Your task to perform on an android device: toggle data saver in the chrome app Image 0: 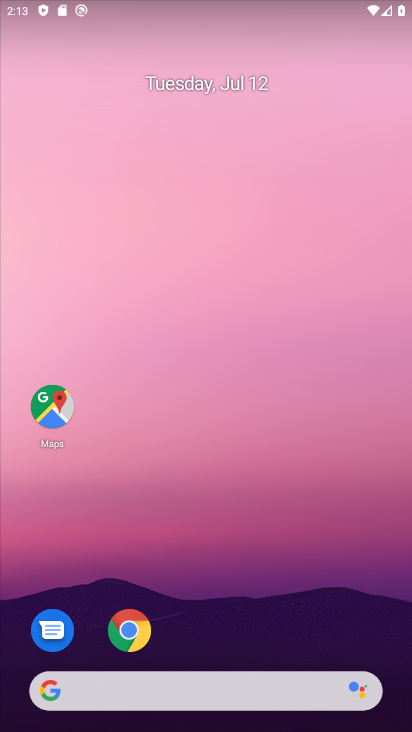
Step 0: click (130, 629)
Your task to perform on an android device: toggle data saver in the chrome app Image 1: 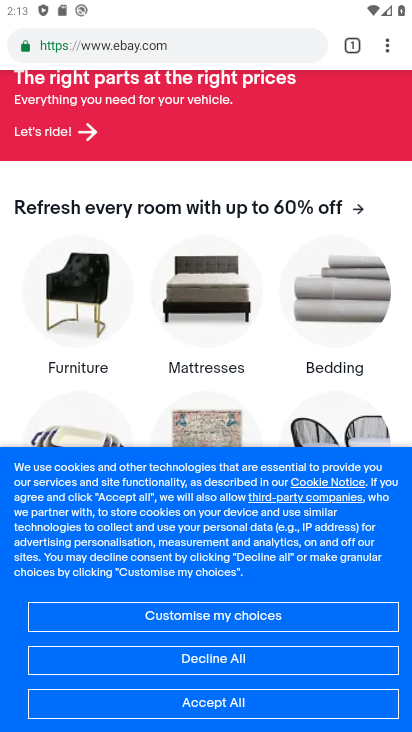
Step 1: click (384, 45)
Your task to perform on an android device: toggle data saver in the chrome app Image 2: 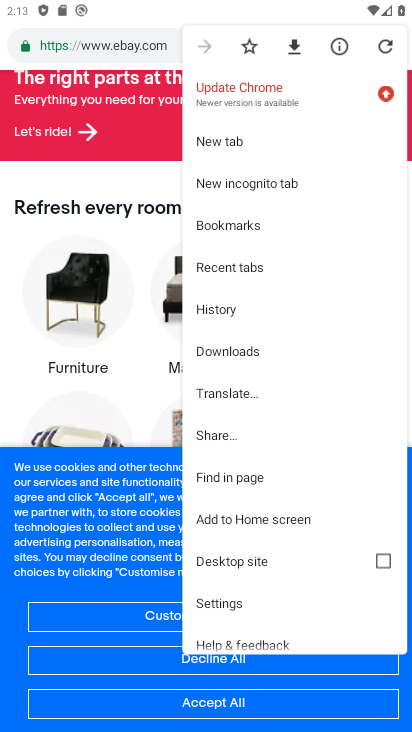
Step 2: click (234, 598)
Your task to perform on an android device: toggle data saver in the chrome app Image 3: 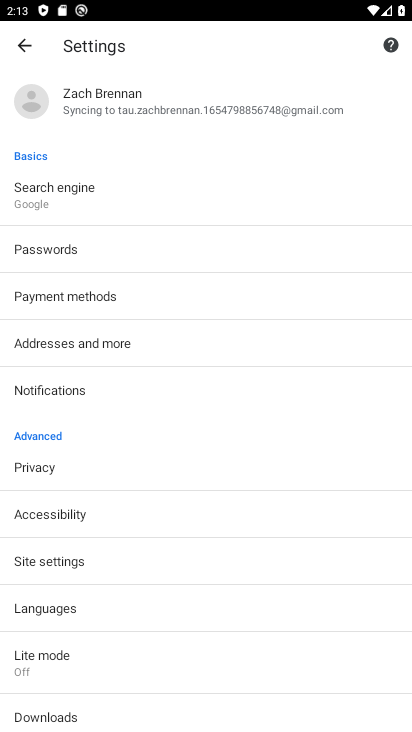
Step 3: click (40, 660)
Your task to perform on an android device: toggle data saver in the chrome app Image 4: 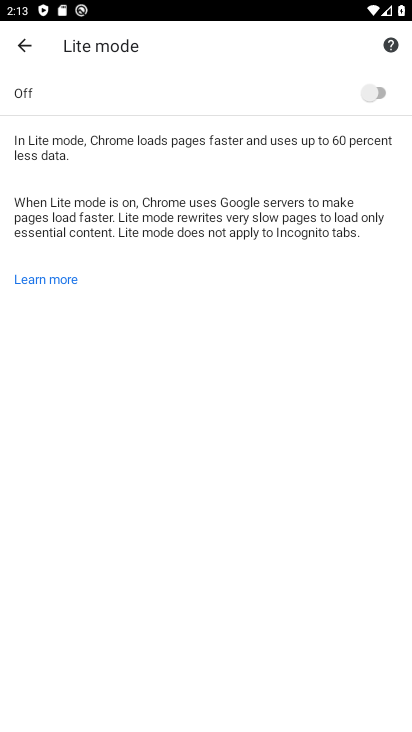
Step 4: click (379, 92)
Your task to perform on an android device: toggle data saver in the chrome app Image 5: 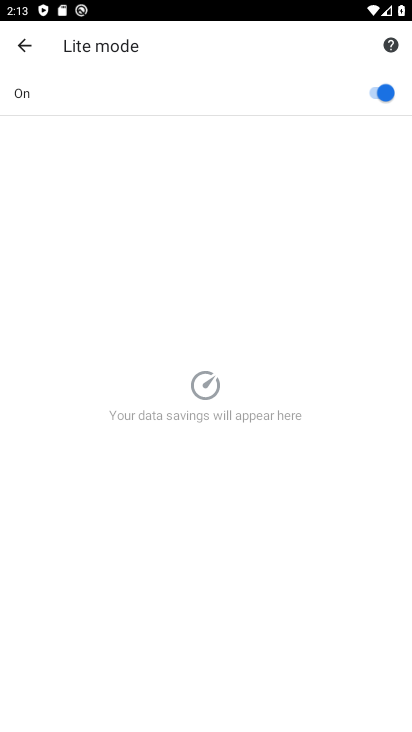
Step 5: task complete